Your task to perform on an android device: Clear the shopping cart on walmart.com. Add usb-b to the cart on walmart.com Image 0: 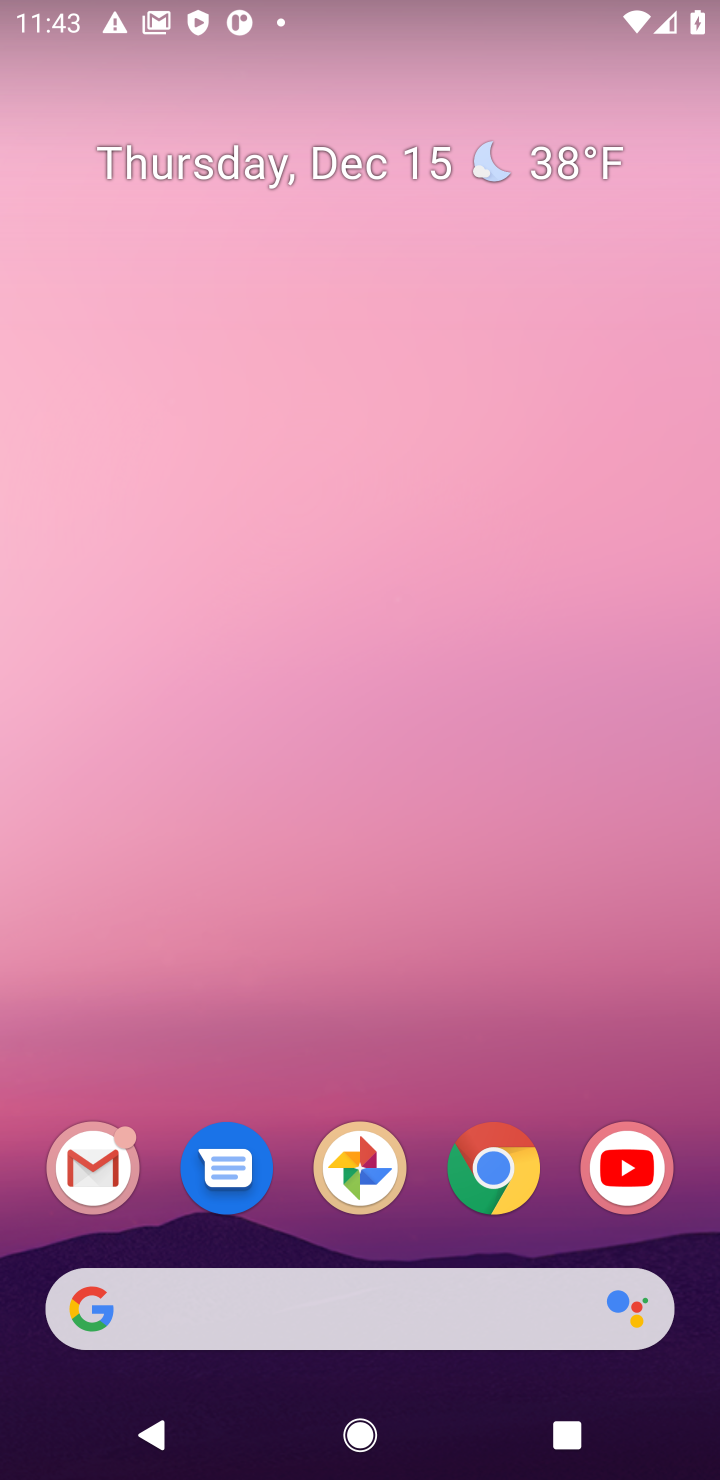
Step 0: click (494, 1167)
Your task to perform on an android device: Clear the shopping cart on walmart.com. Add usb-b to the cart on walmart.com Image 1: 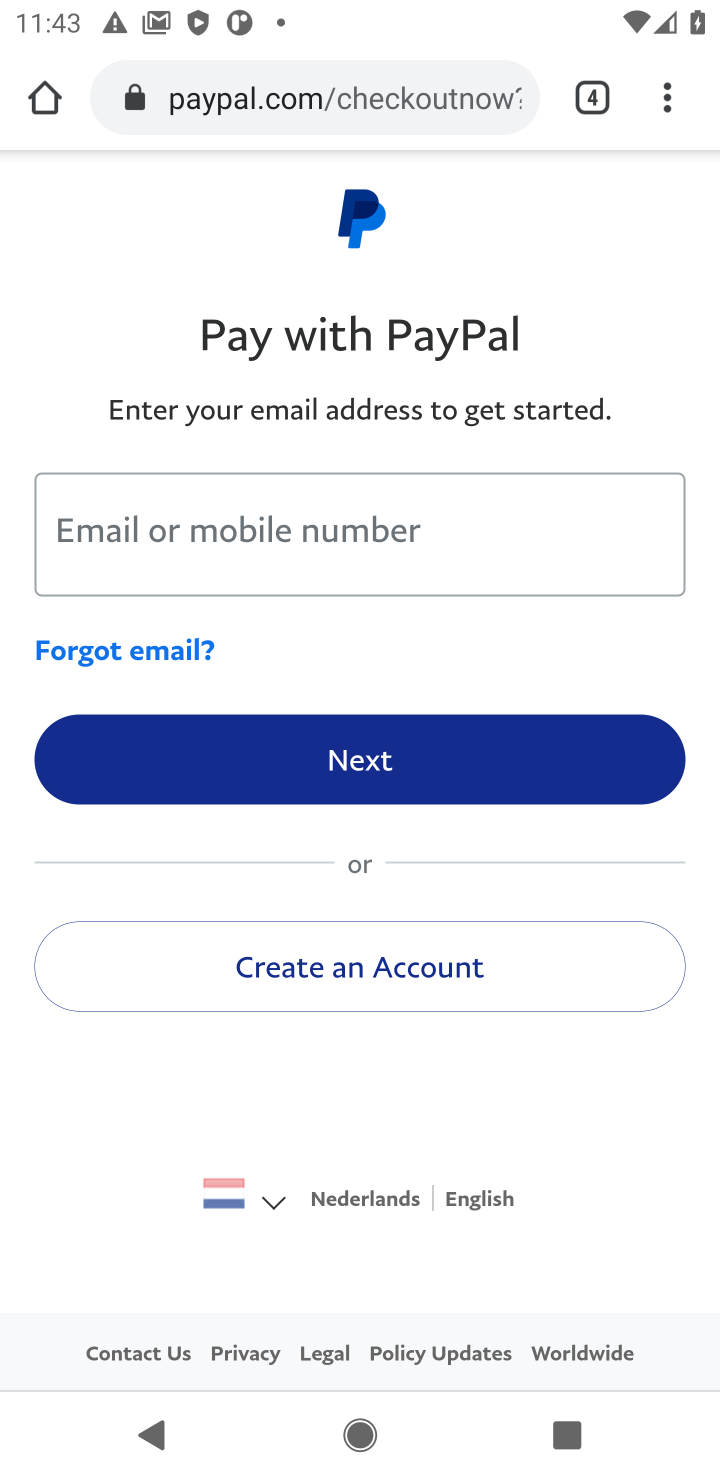
Step 1: click (369, 99)
Your task to perform on an android device: Clear the shopping cart on walmart.com. Add usb-b to the cart on walmart.com Image 2: 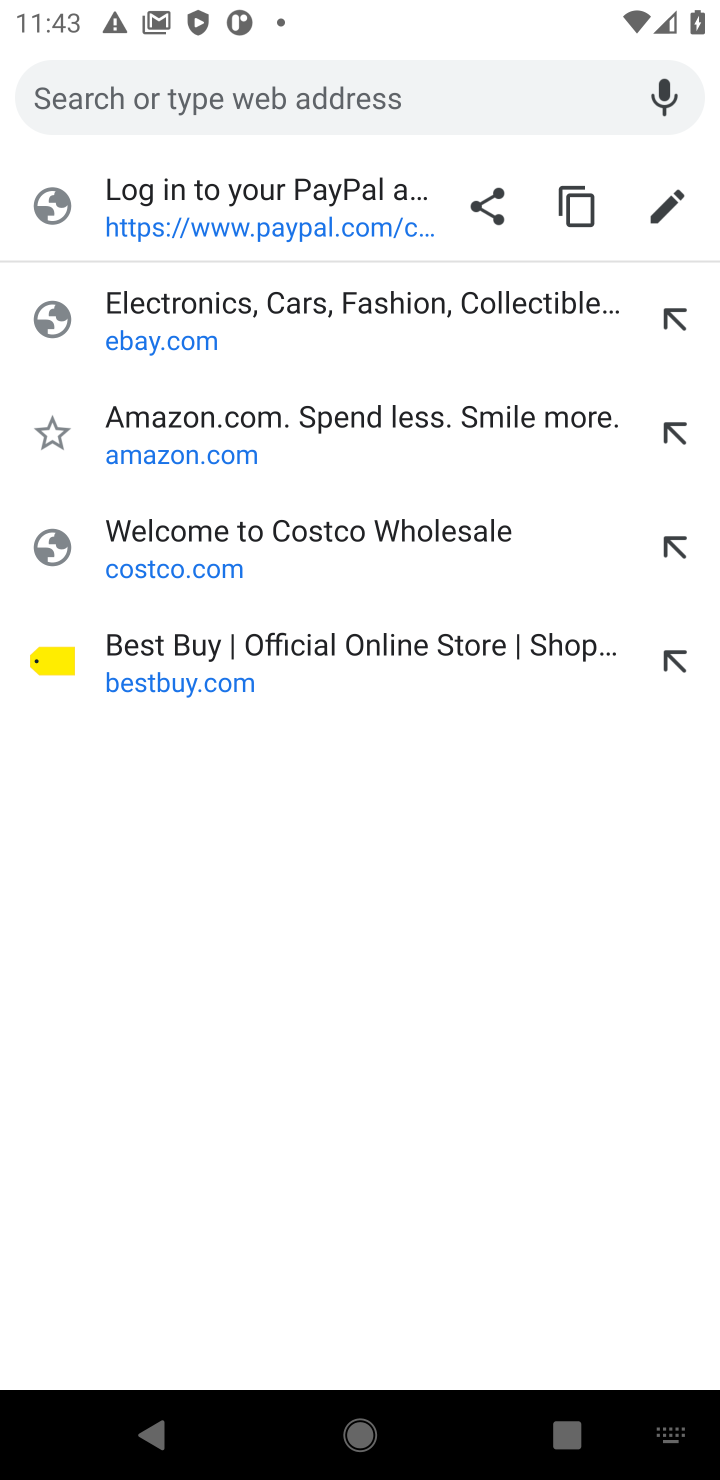
Step 2: type "walmart"
Your task to perform on an android device: Clear the shopping cart on walmart.com. Add usb-b to the cart on walmart.com Image 3: 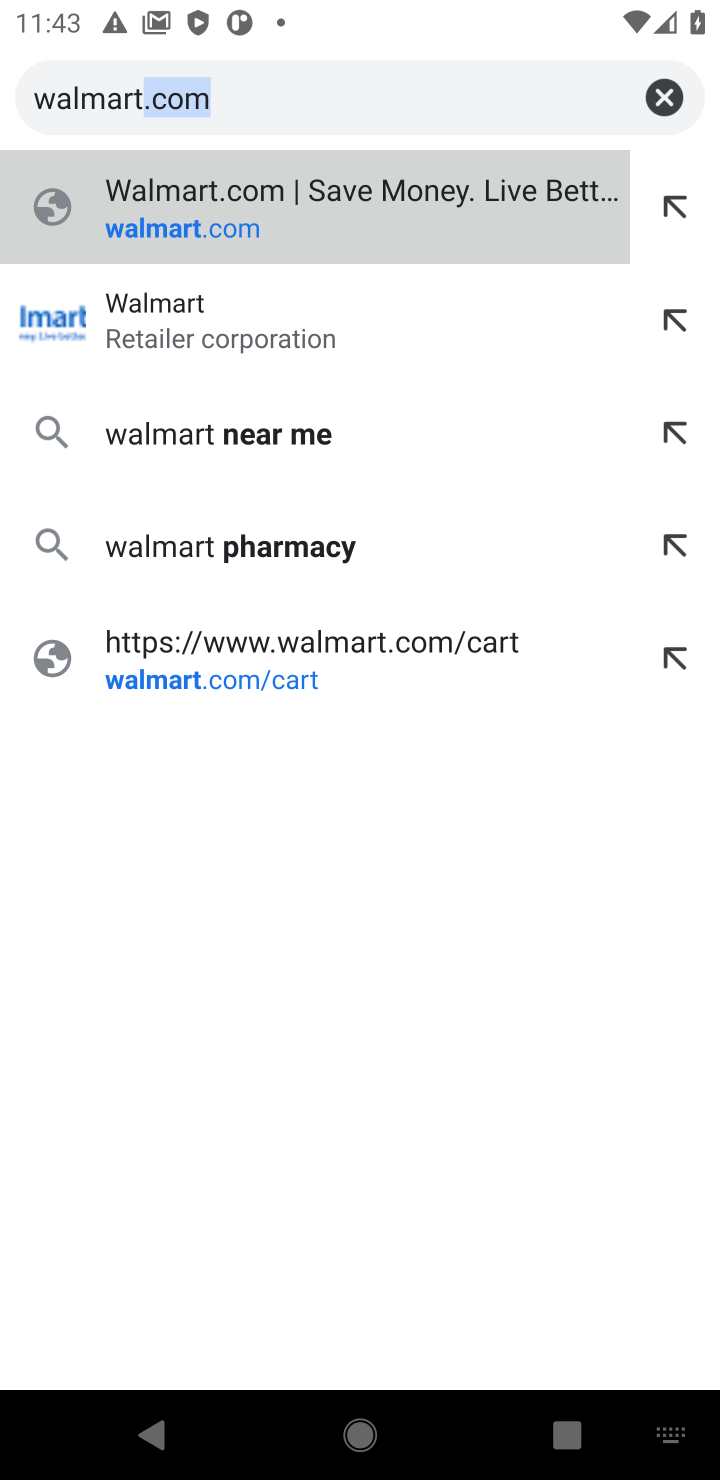
Step 3: click (309, 215)
Your task to perform on an android device: Clear the shopping cart on walmart.com. Add usb-b to the cart on walmart.com Image 4: 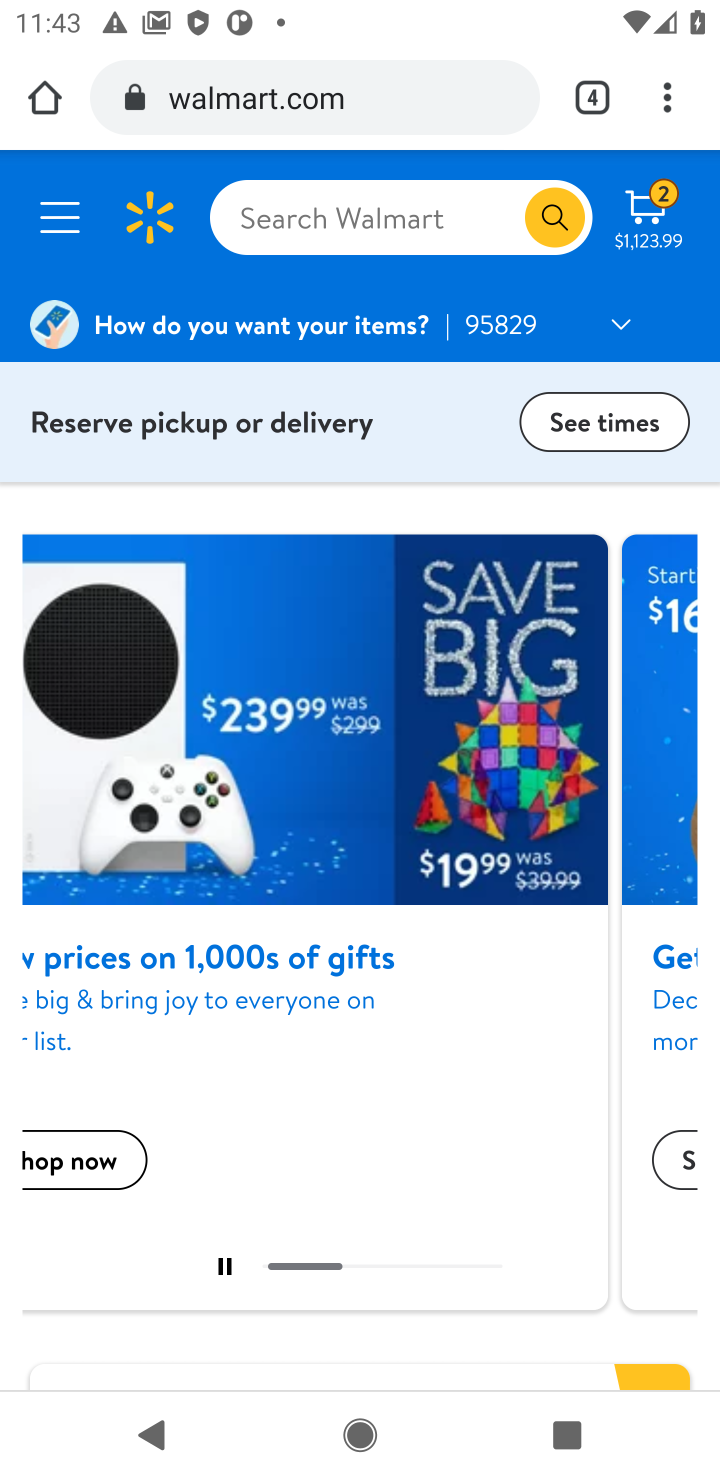
Step 4: click (653, 208)
Your task to perform on an android device: Clear the shopping cart on walmart.com. Add usb-b to the cart on walmart.com Image 5: 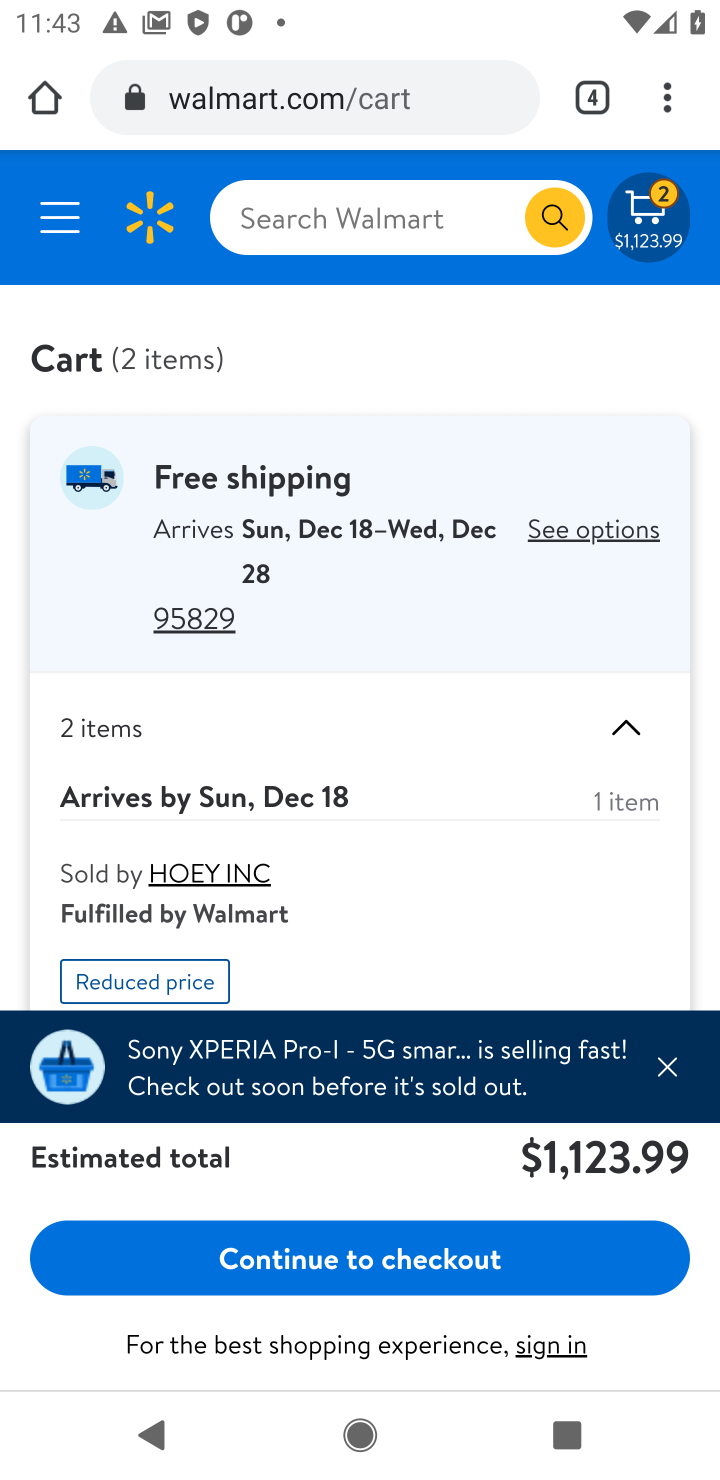
Step 5: drag from (397, 875) to (406, 159)
Your task to perform on an android device: Clear the shopping cart on walmart.com. Add usb-b to the cart on walmart.com Image 6: 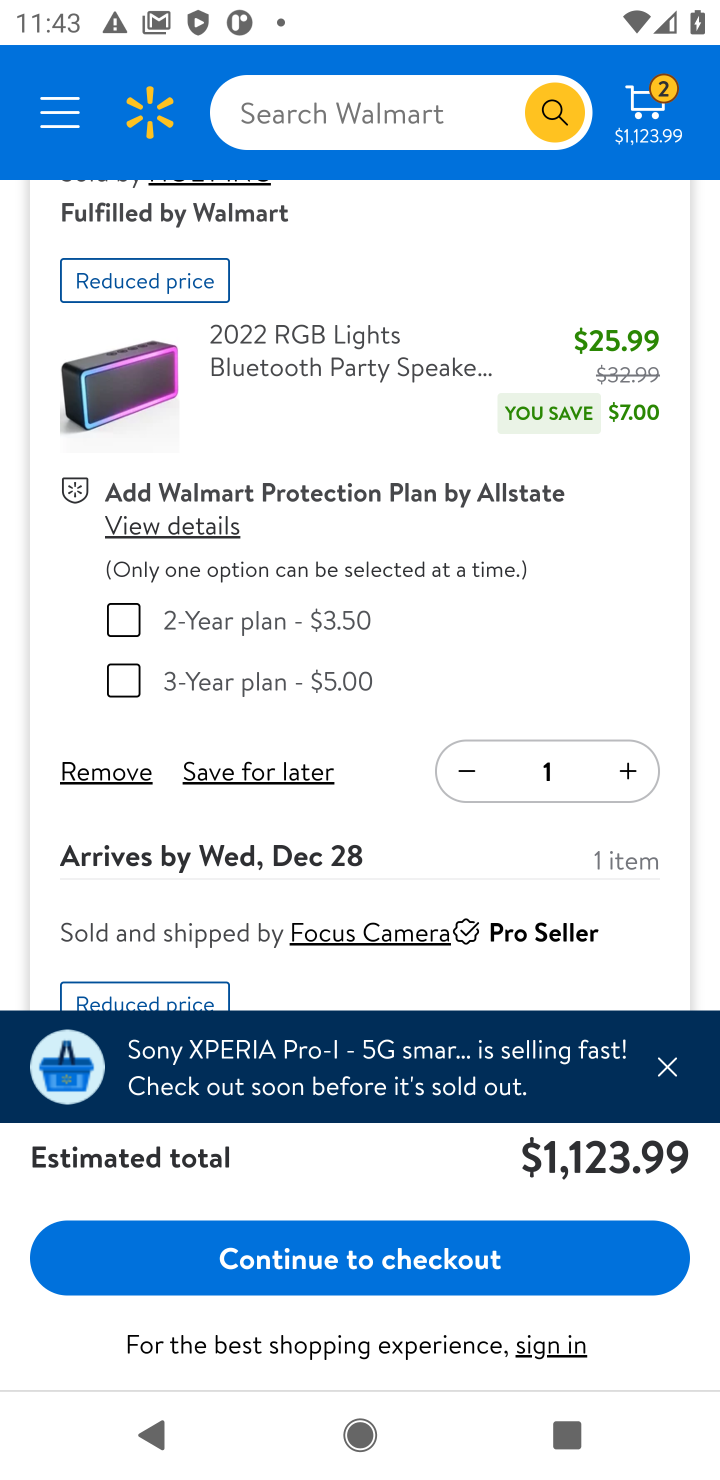
Step 6: click (110, 773)
Your task to perform on an android device: Clear the shopping cart on walmart.com. Add usb-b to the cart on walmart.com Image 7: 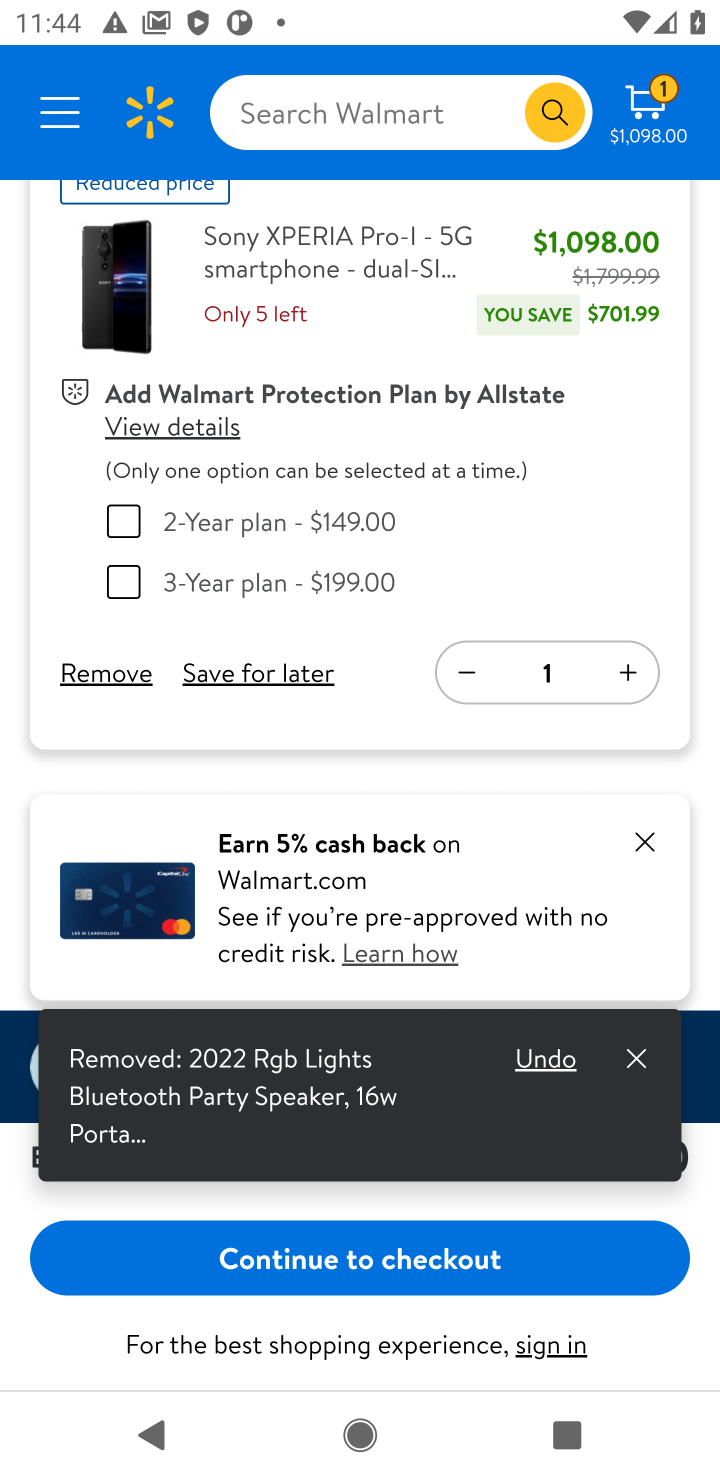
Step 7: click (118, 670)
Your task to perform on an android device: Clear the shopping cart on walmart.com. Add usb-b to the cart on walmart.com Image 8: 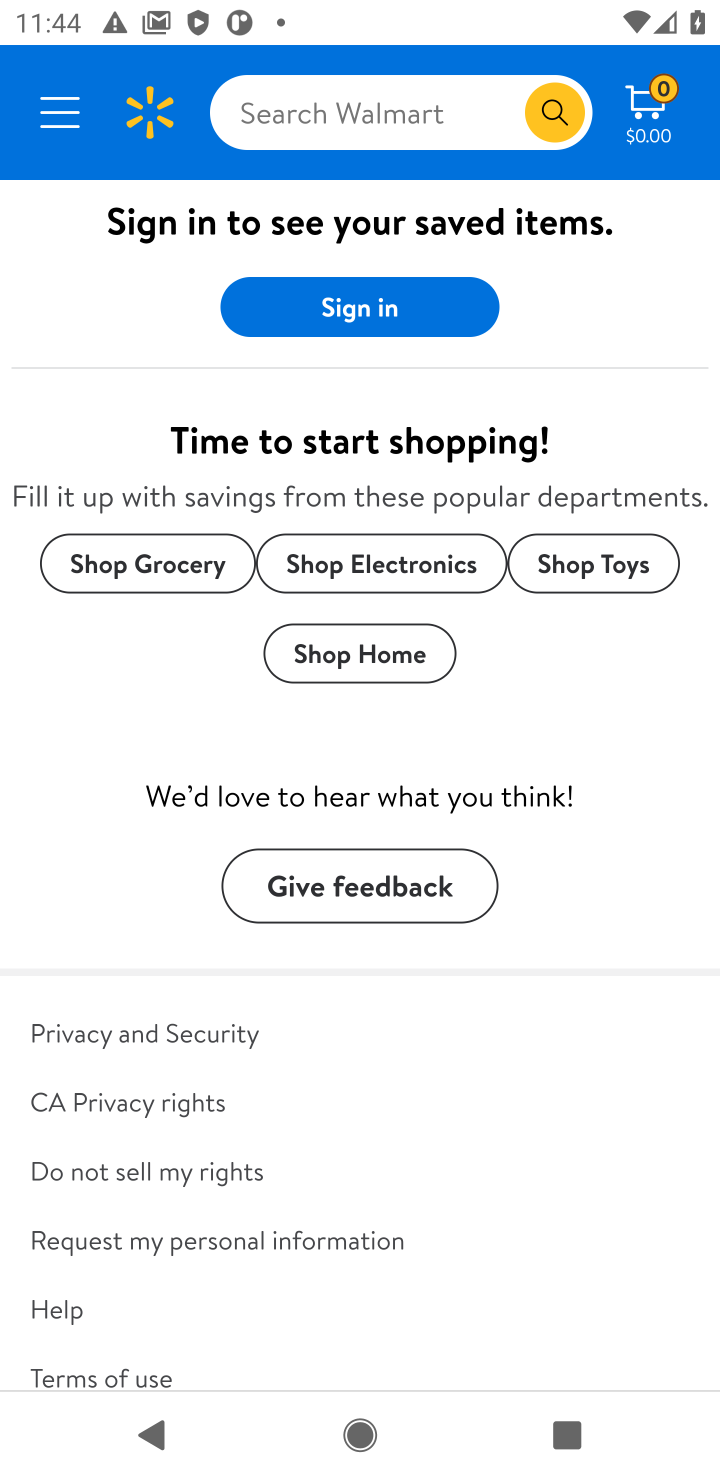
Step 8: click (421, 87)
Your task to perform on an android device: Clear the shopping cart on walmart.com. Add usb-b to the cart on walmart.com Image 9: 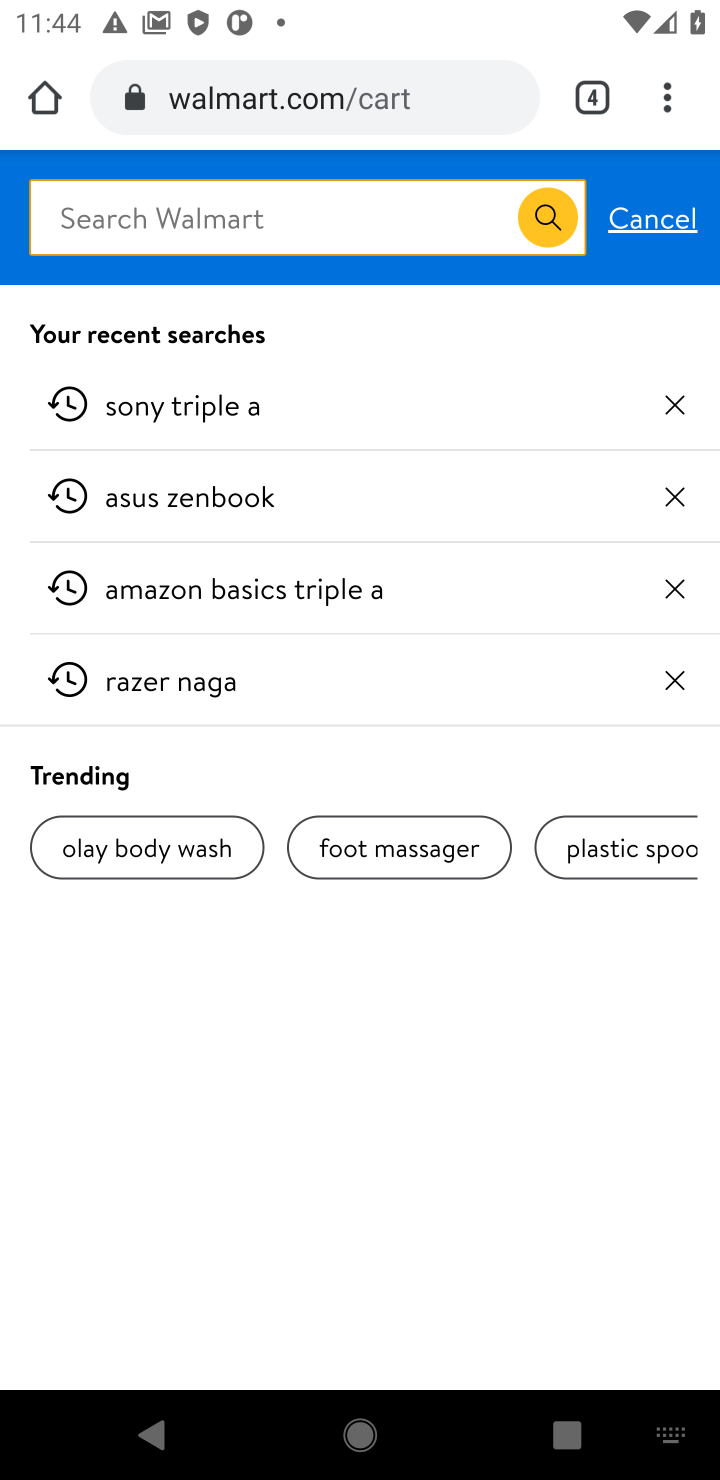
Step 9: type "usb-b"
Your task to perform on an android device: Clear the shopping cart on walmart.com. Add usb-b to the cart on walmart.com Image 10: 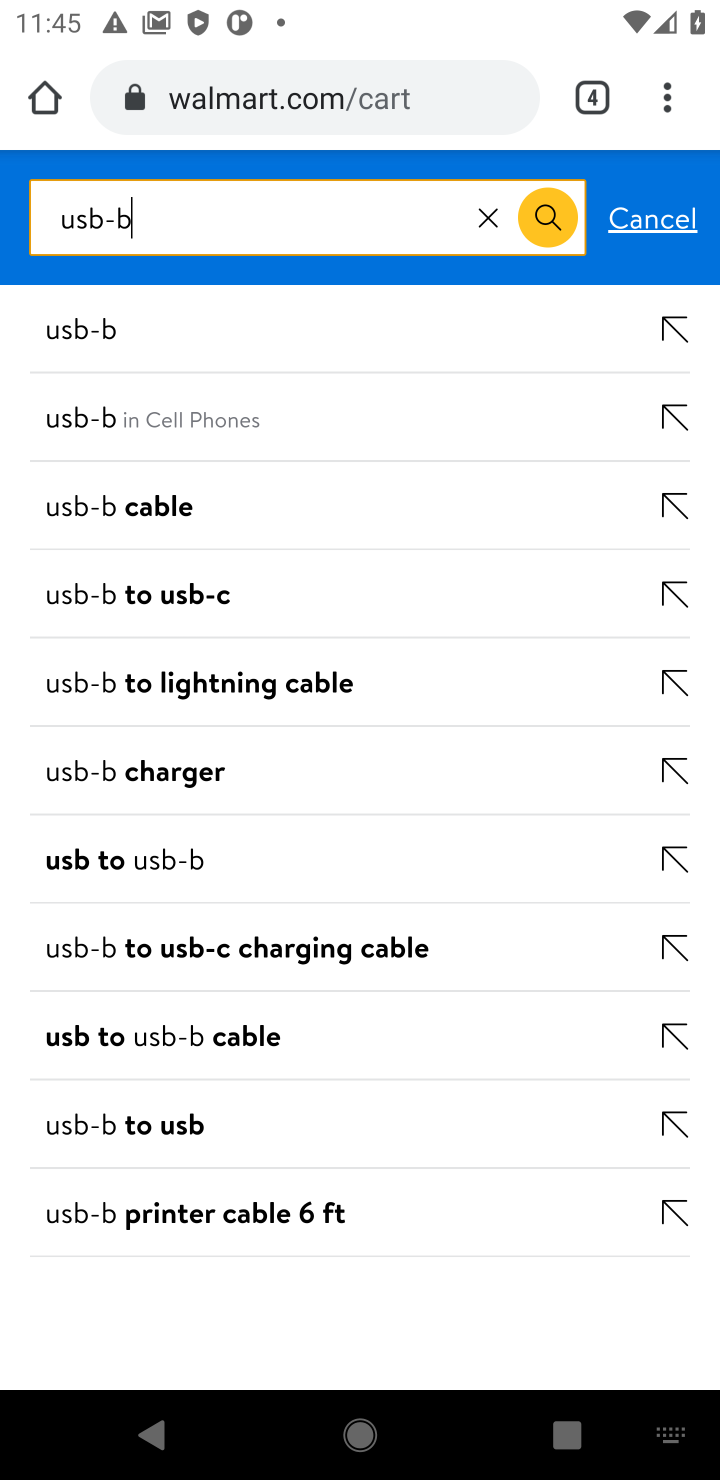
Step 10: click (141, 338)
Your task to perform on an android device: Clear the shopping cart on walmart.com. Add usb-b to the cart on walmart.com Image 11: 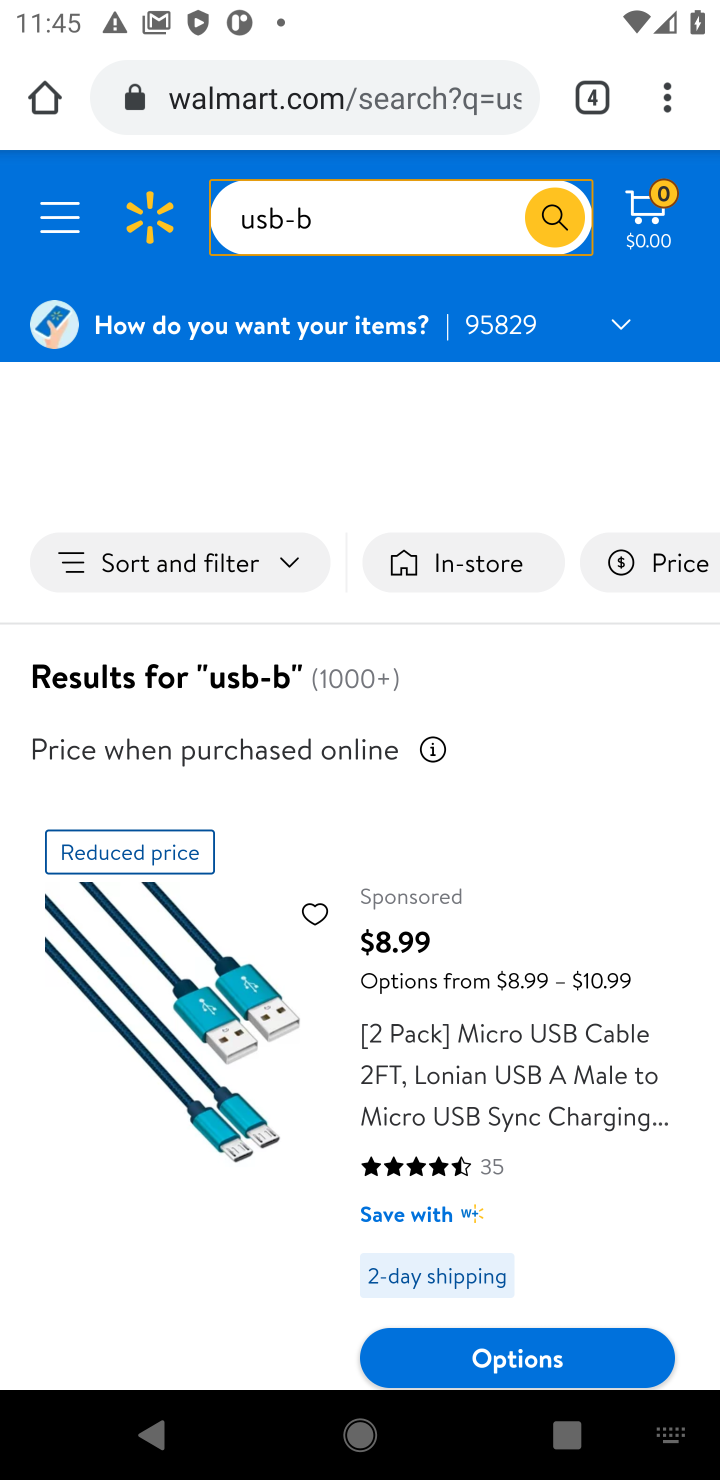
Step 11: click (570, 999)
Your task to perform on an android device: Clear the shopping cart on walmart.com. Add usb-b to the cart on walmart.com Image 12: 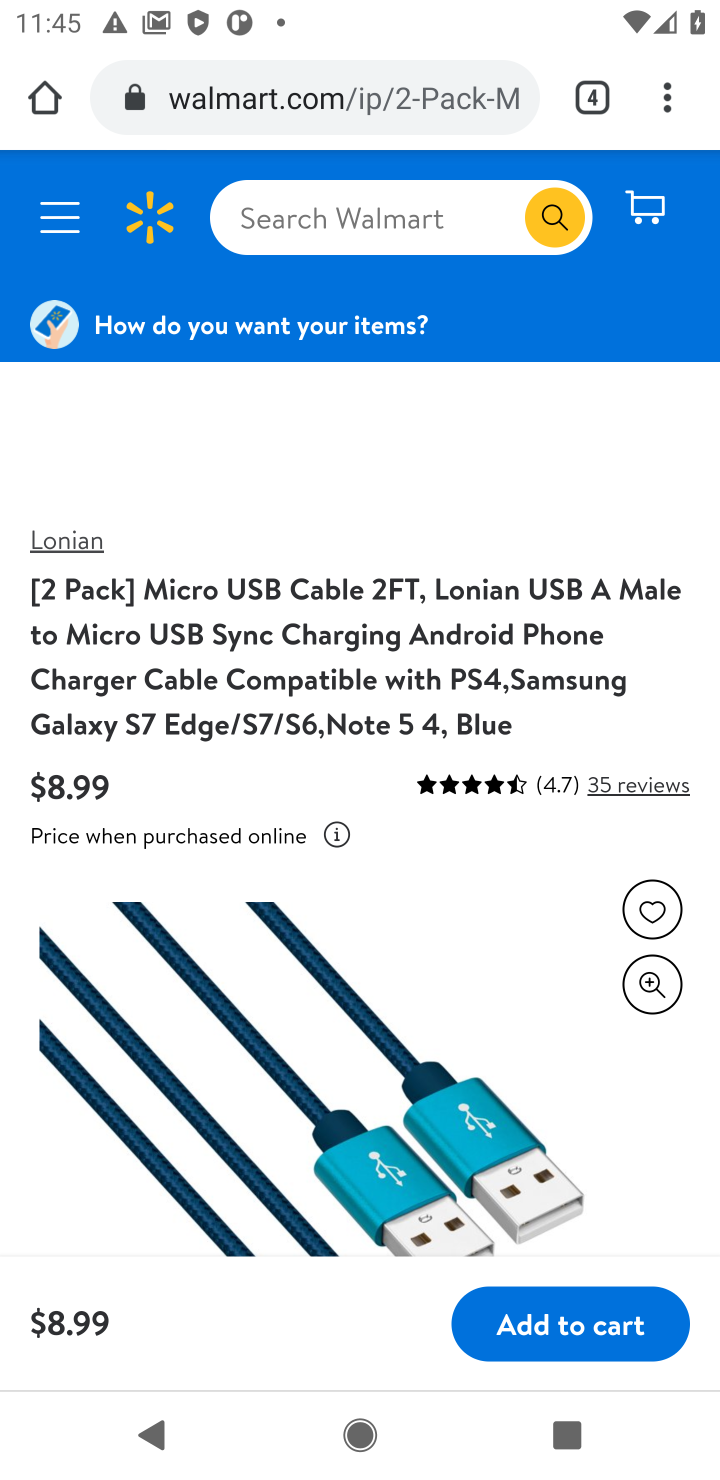
Step 12: click (535, 1323)
Your task to perform on an android device: Clear the shopping cart on walmart.com. Add usb-b to the cart on walmart.com Image 13: 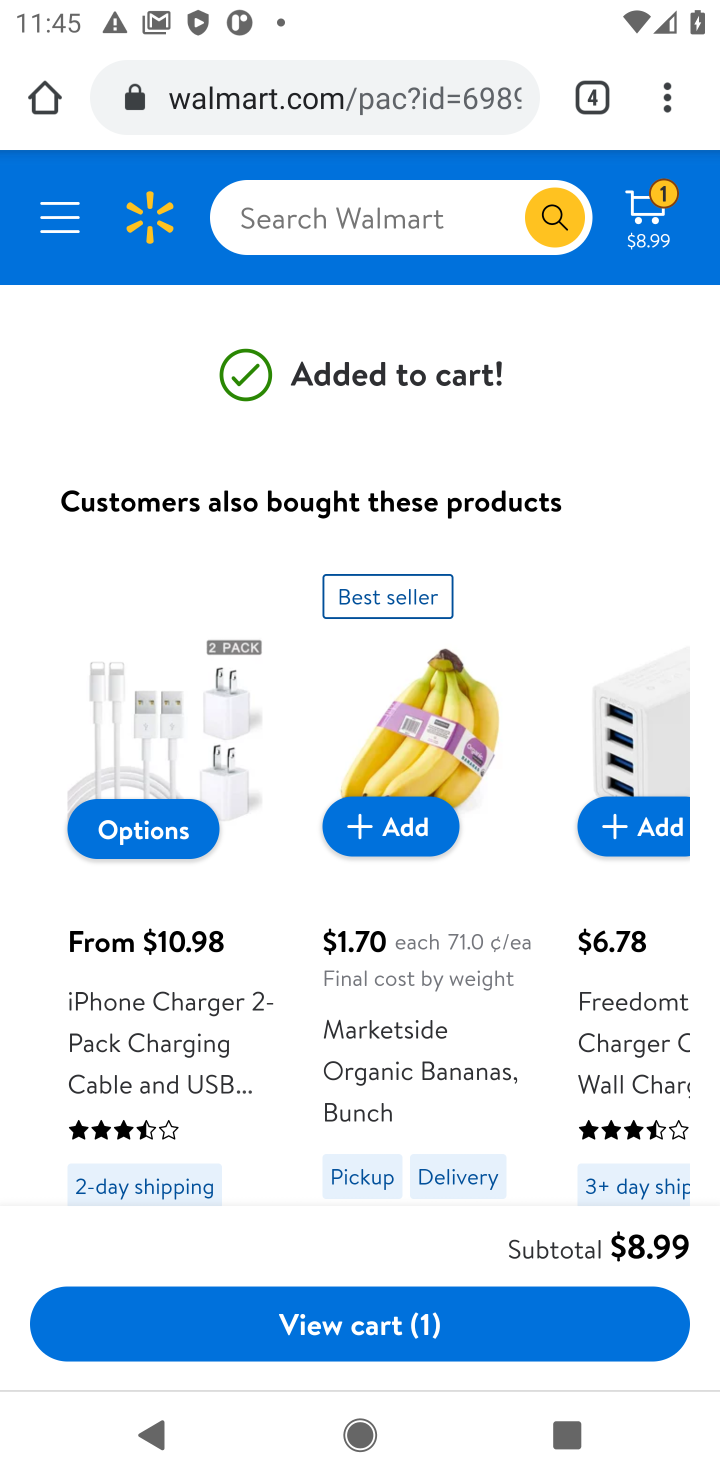
Step 13: task complete